Your task to perform on an android device: check the backup settings in the google photos Image 0: 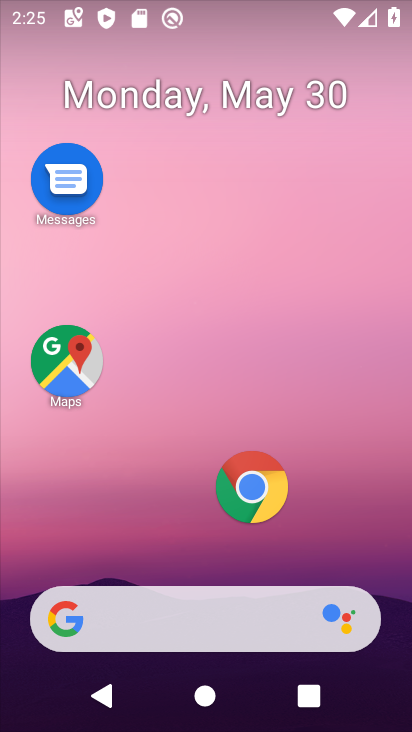
Step 0: drag from (192, 549) to (128, 3)
Your task to perform on an android device: check the backup settings in the google photos Image 1: 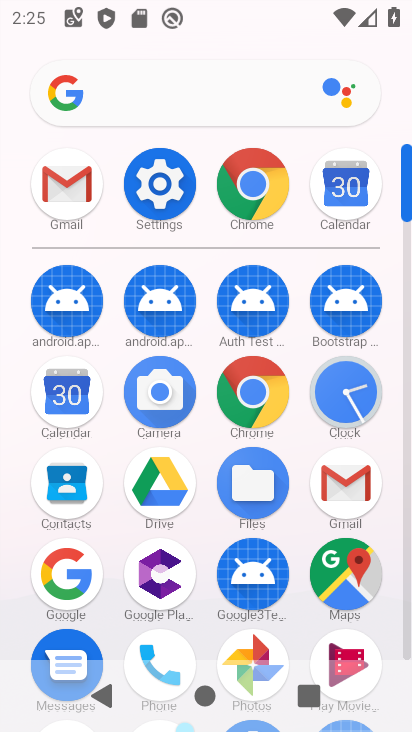
Step 1: click (265, 653)
Your task to perform on an android device: check the backup settings in the google photos Image 2: 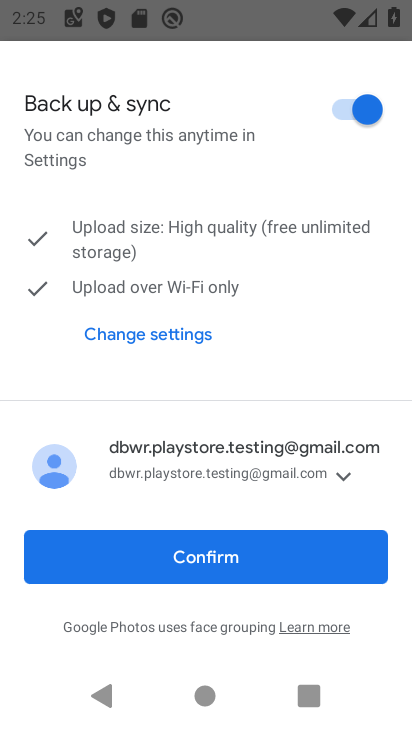
Step 2: click (213, 558)
Your task to perform on an android device: check the backup settings in the google photos Image 3: 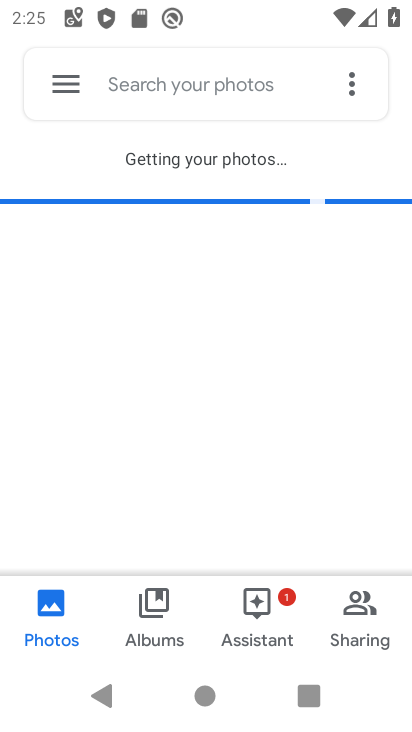
Step 3: click (71, 85)
Your task to perform on an android device: check the backup settings in the google photos Image 4: 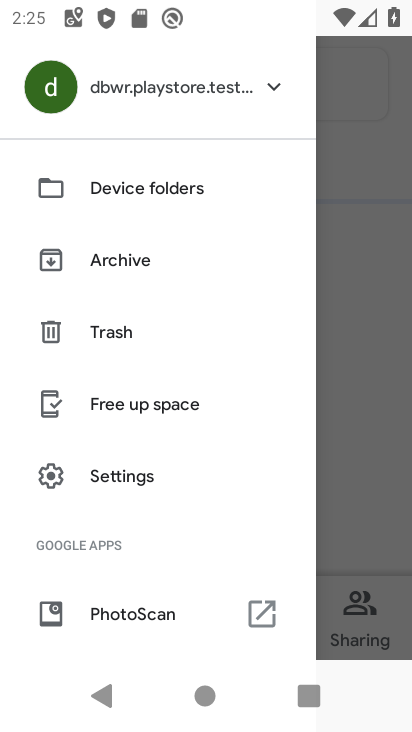
Step 4: click (135, 476)
Your task to perform on an android device: check the backup settings in the google photos Image 5: 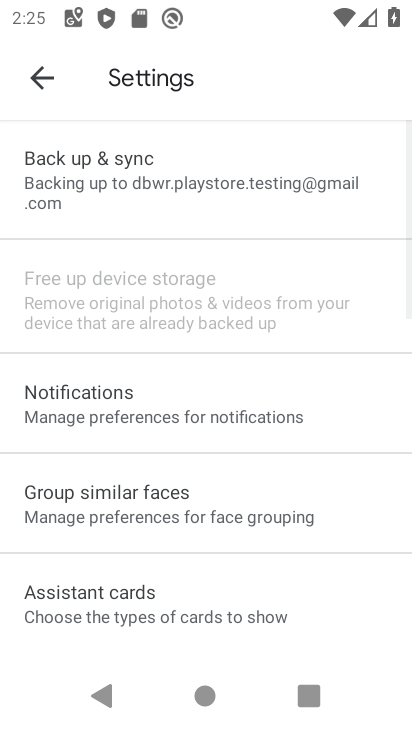
Step 5: click (93, 202)
Your task to perform on an android device: check the backup settings in the google photos Image 6: 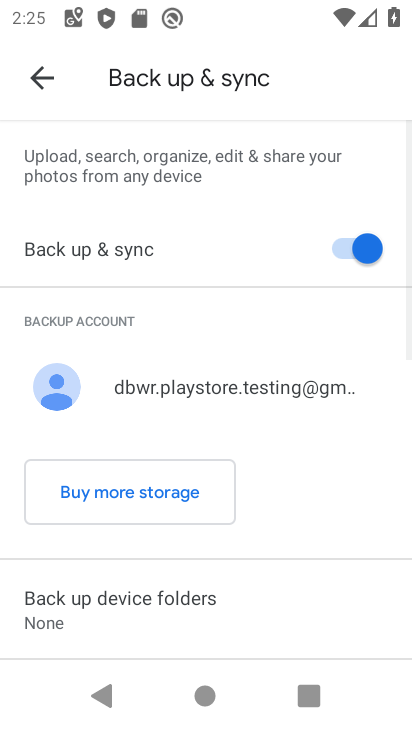
Step 6: drag from (284, 555) to (296, 232)
Your task to perform on an android device: check the backup settings in the google photos Image 7: 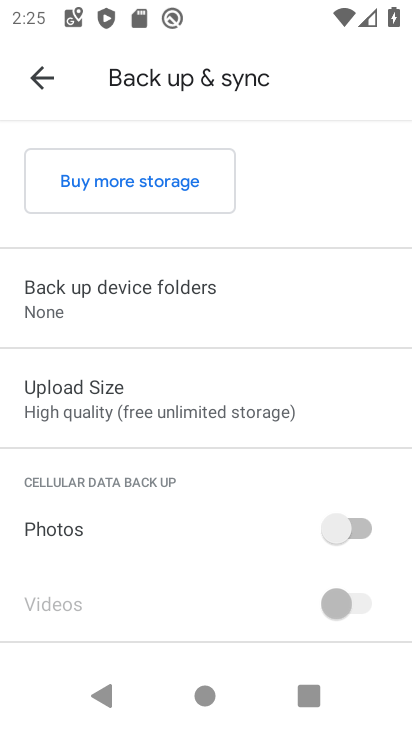
Step 7: click (127, 406)
Your task to perform on an android device: check the backup settings in the google photos Image 8: 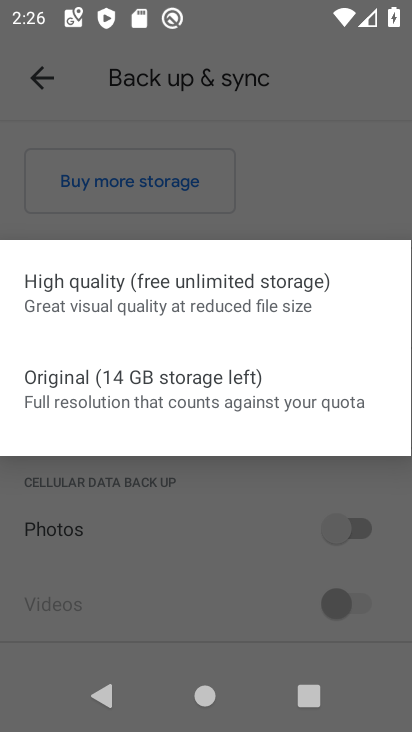
Step 8: click (127, 406)
Your task to perform on an android device: check the backup settings in the google photos Image 9: 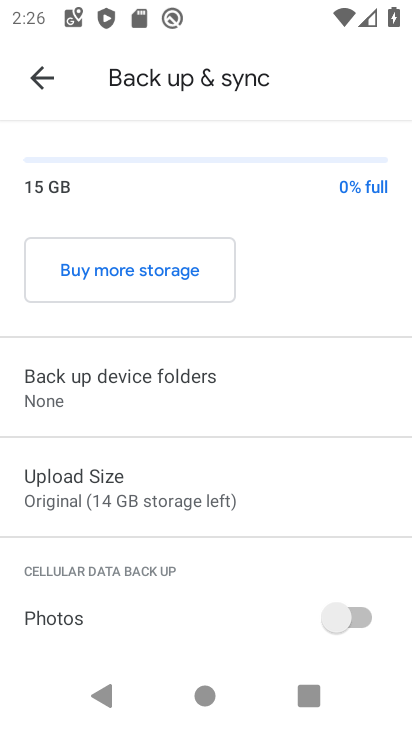
Step 9: task complete